Your task to perform on an android device: Open location settings Image 0: 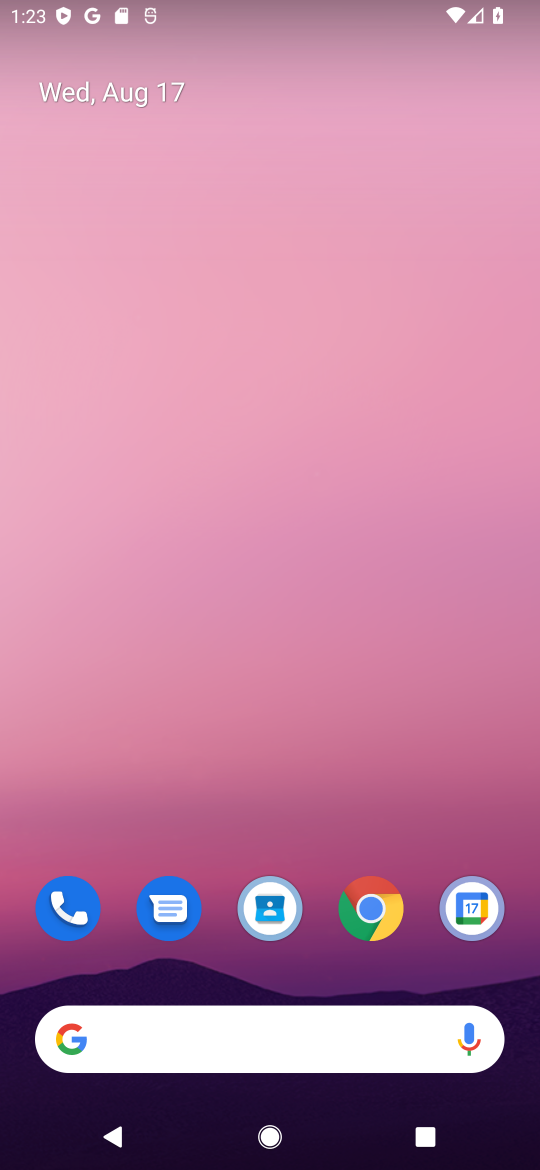
Step 0: press home button
Your task to perform on an android device: Open location settings Image 1: 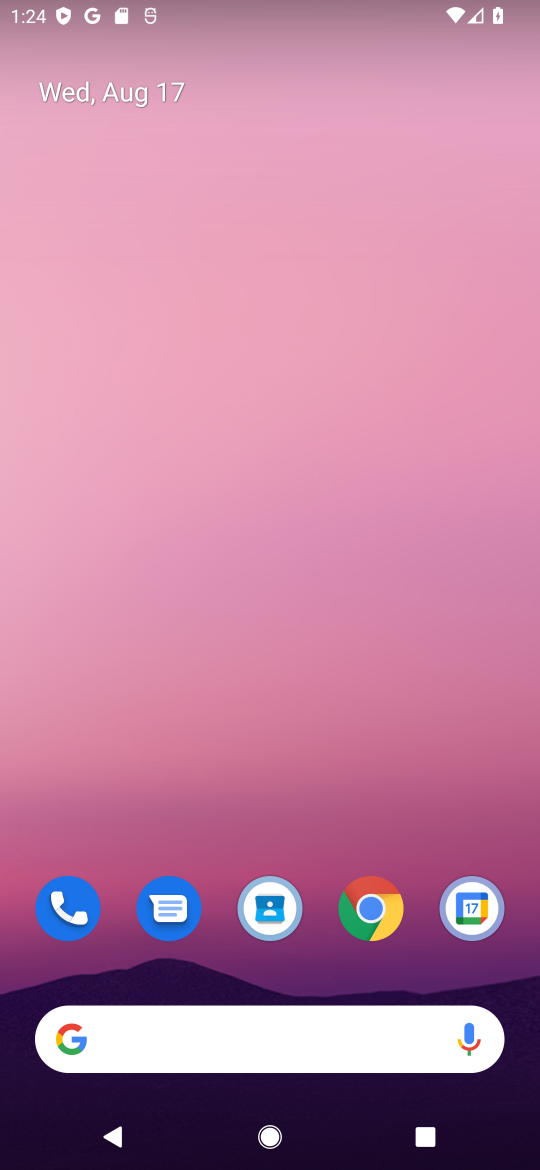
Step 1: drag from (323, 954) to (328, 185)
Your task to perform on an android device: Open location settings Image 2: 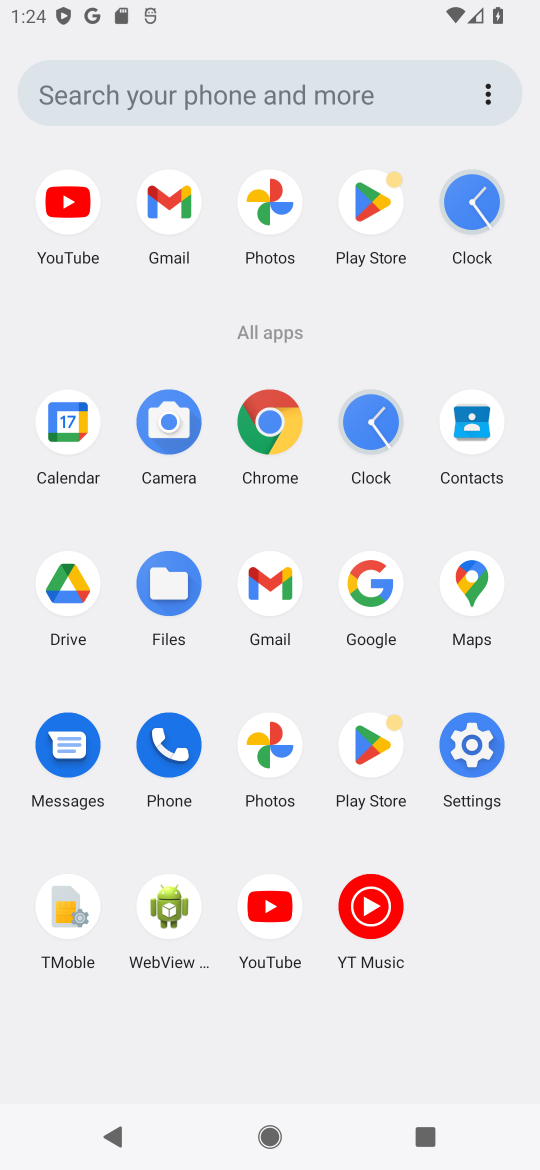
Step 2: click (486, 756)
Your task to perform on an android device: Open location settings Image 3: 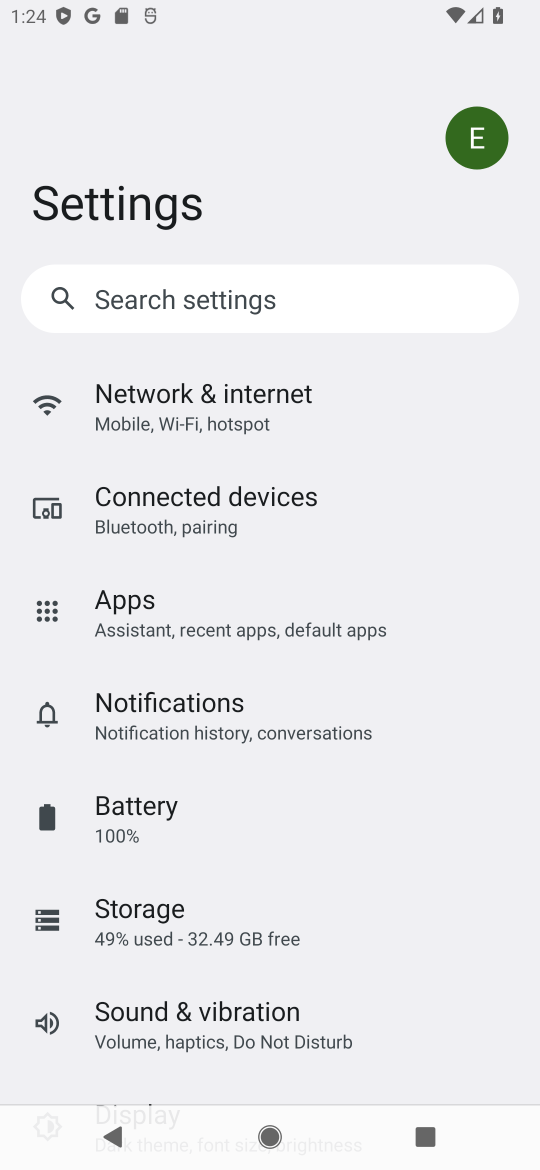
Step 3: drag from (468, 1046) to (486, 184)
Your task to perform on an android device: Open location settings Image 4: 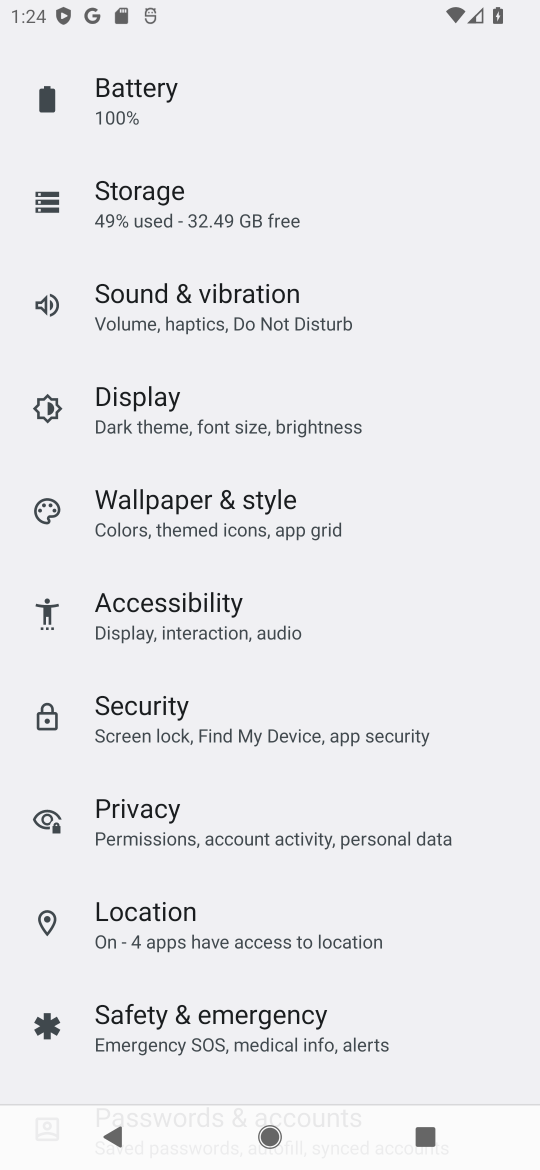
Step 4: click (170, 943)
Your task to perform on an android device: Open location settings Image 5: 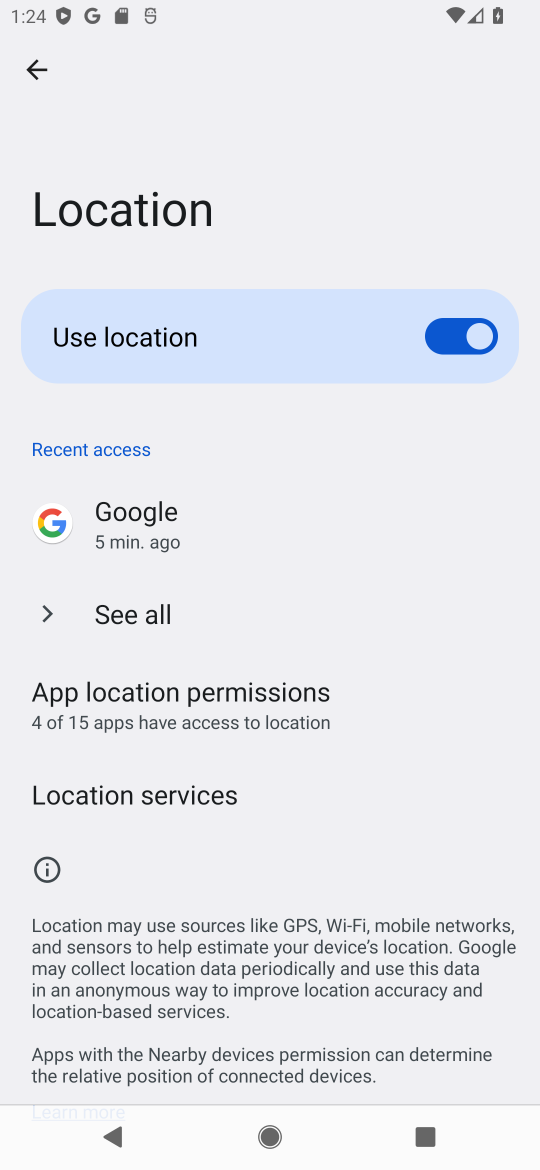
Step 5: task complete